Your task to perform on an android device: set the stopwatch Image 0: 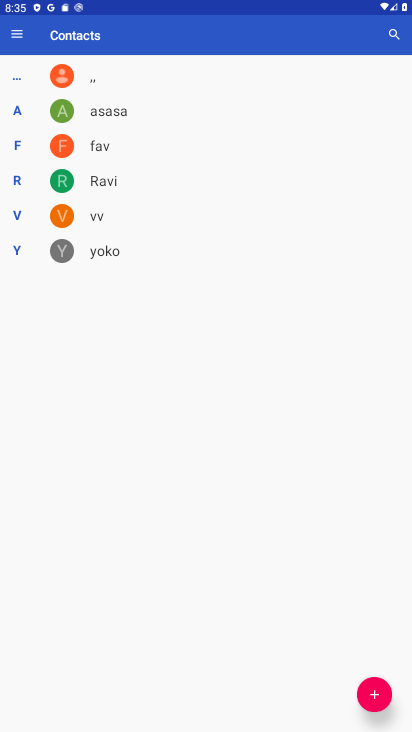
Step 0: press home button
Your task to perform on an android device: set the stopwatch Image 1: 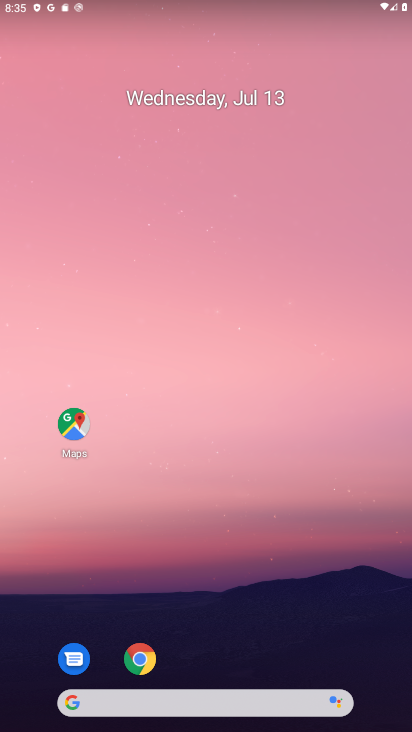
Step 1: drag from (286, 659) to (226, 162)
Your task to perform on an android device: set the stopwatch Image 2: 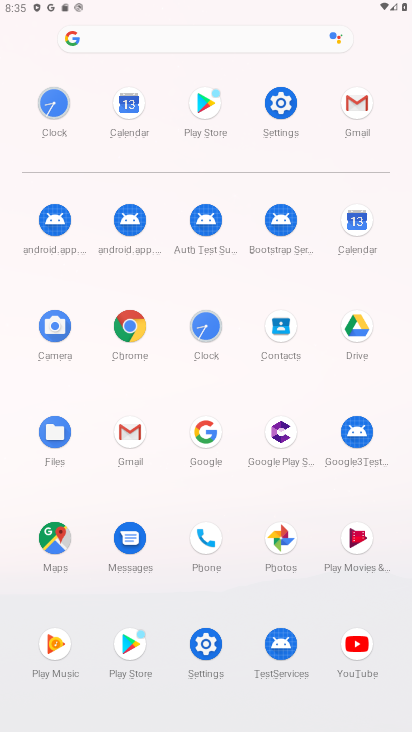
Step 2: click (59, 119)
Your task to perform on an android device: set the stopwatch Image 3: 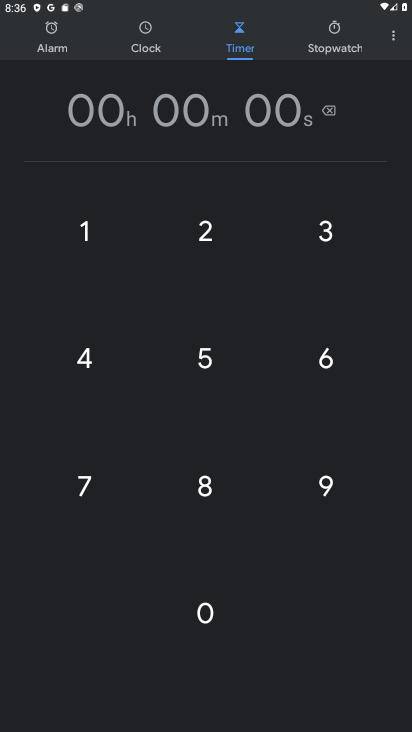
Step 3: click (332, 43)
Your task to perform on an android device: set the stopwatch Image 4: 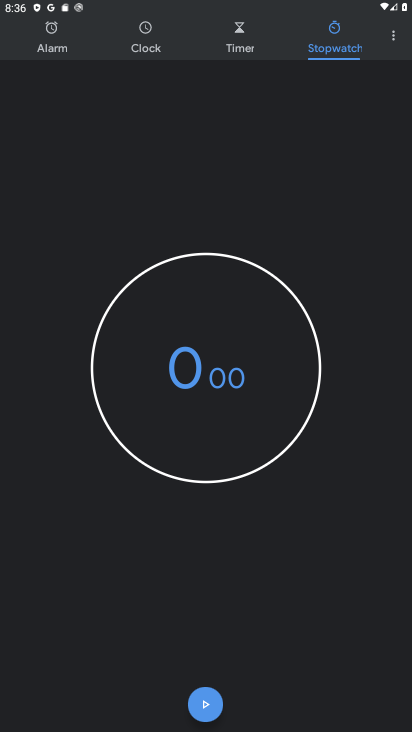
Step 4: task complete